Your task to perform on an android device: turn off sleep mode Image 0: 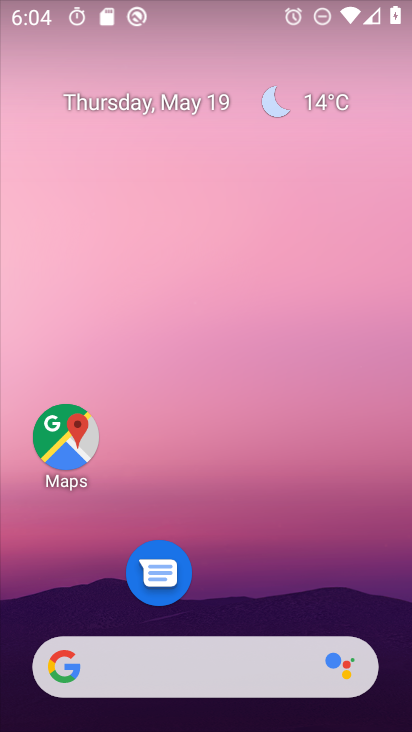
Step 0: drag from (245, 601) to (199, 157)
Your task to perform on an android device: turn off sleep mode Image 1: 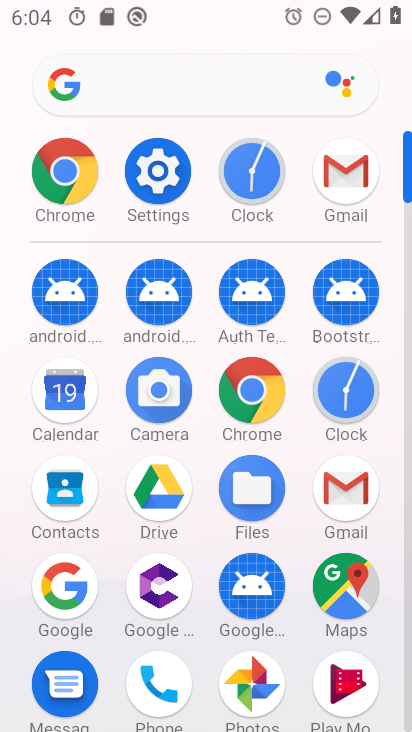
Step 1: click (150, 175)
Your task to perform on an android device: turn off sleep mode Image 2: 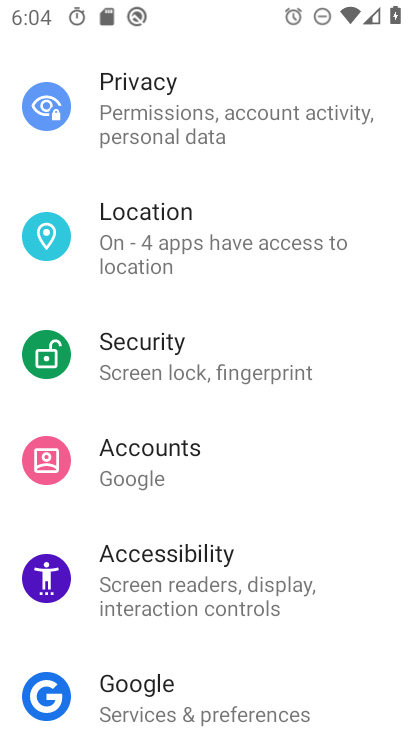
Step 2: task complete